Your task to perform on an android device: star an email in the gmail app Image 0: 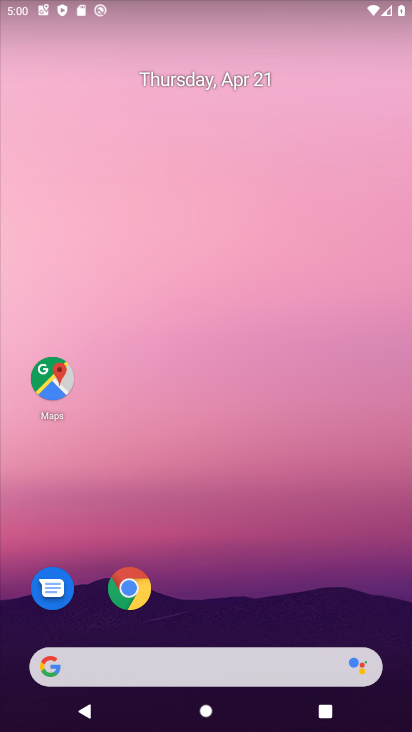
Step 0: drag from (228, 337) to (239, 43)
Your task to perform on an android device: star an email in the gmail app Image 1: 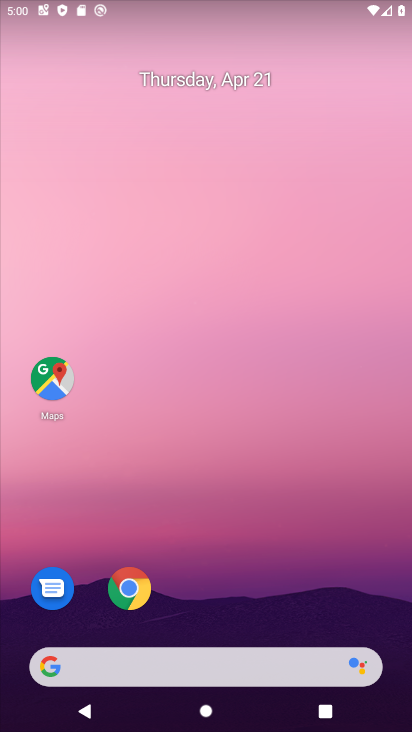
Step 1: drag from (238, 598) to (261, 124)
Your task to perform on an android device: star an email in the gmail app Image 2: 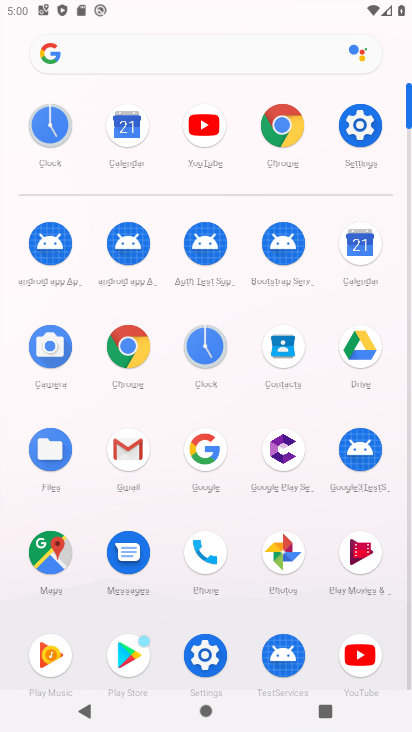
Step 2: click (125, 452)
Your task to perform on an android device: star an email in the gmail app Image 3: 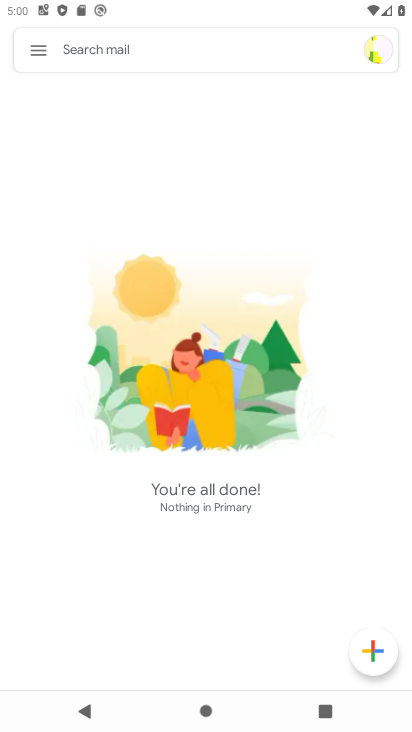
Step 3: click (36, 51)
Your task to perform on an android device: star an email in the gmail app Image 4: 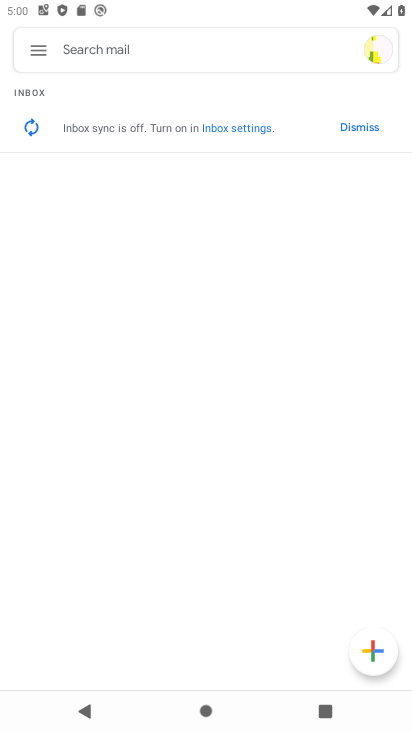
Step 4: click (36, 44)
Your task to perform on an android device: star an email in the gmail app Image 5: 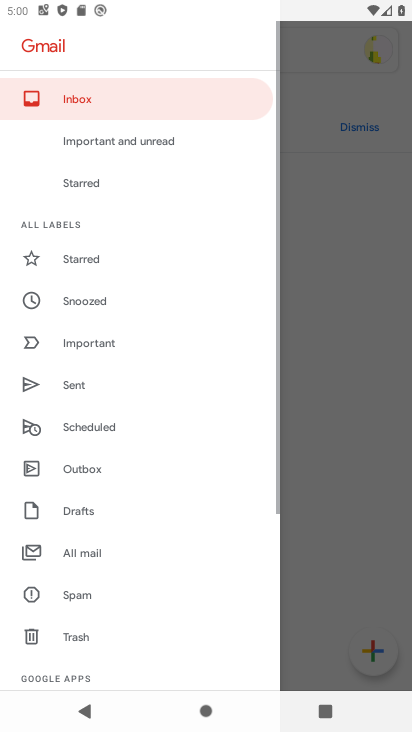
Step 5: click (101, 552)
Your task to perform on an android device: star an email in the gmail app Image 6: 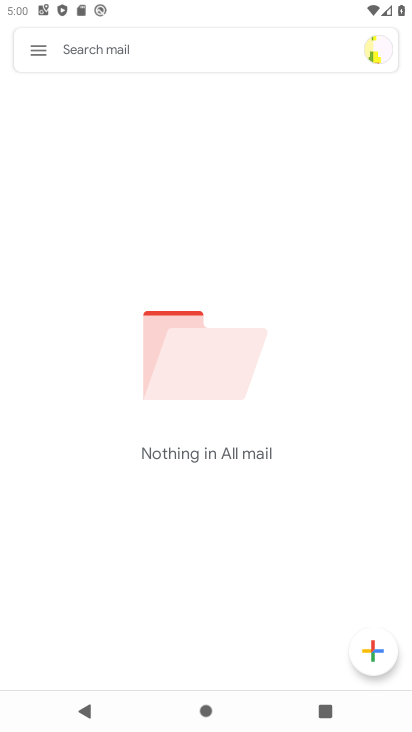
Step 6: task complete